Your task to perform on an android device: Clear all items from cart on amazon. Add "amazon basics triple a" to the cart on amazon, then select checkout. Image 0: 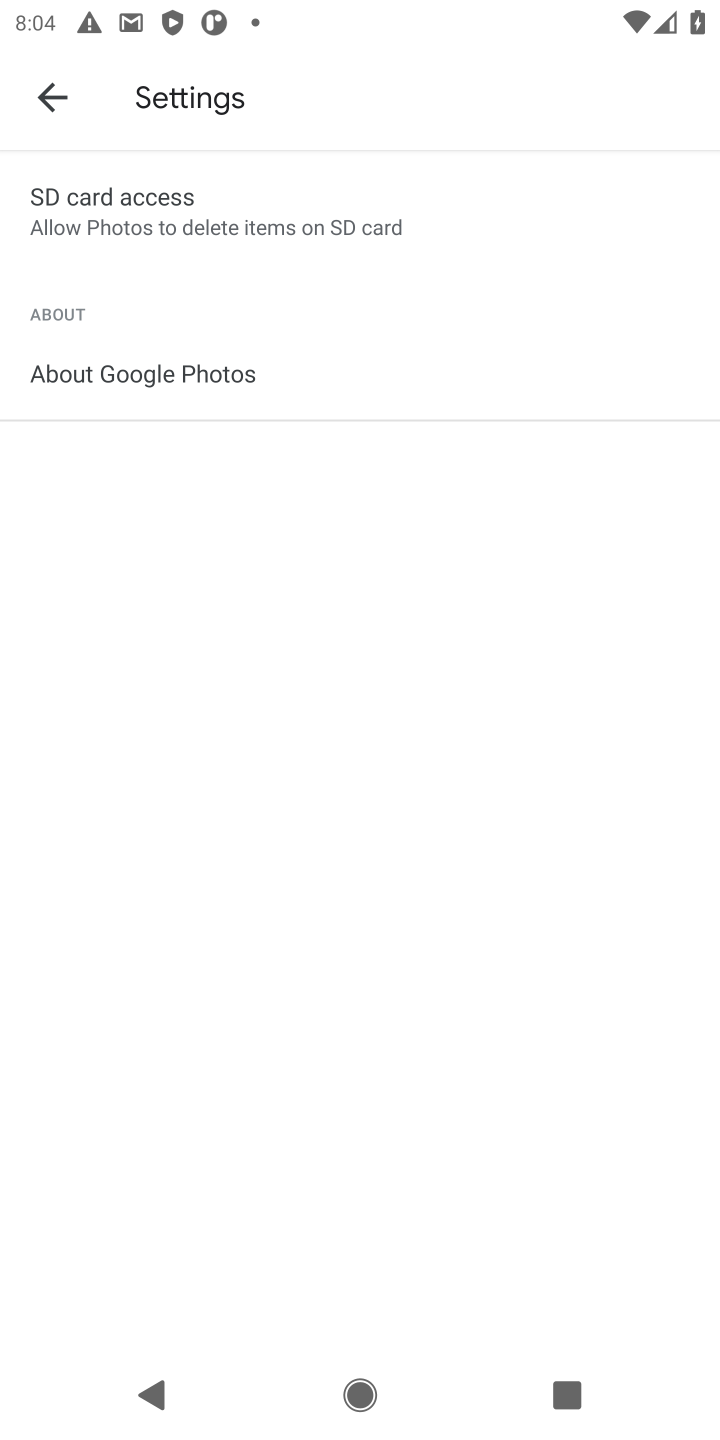
Step 0: press home button
Your task to perform on an android device: Clear all items from cart on amazon. Add "amazon basics triple a" to the cart on amazon, then select checkout. Image 1: 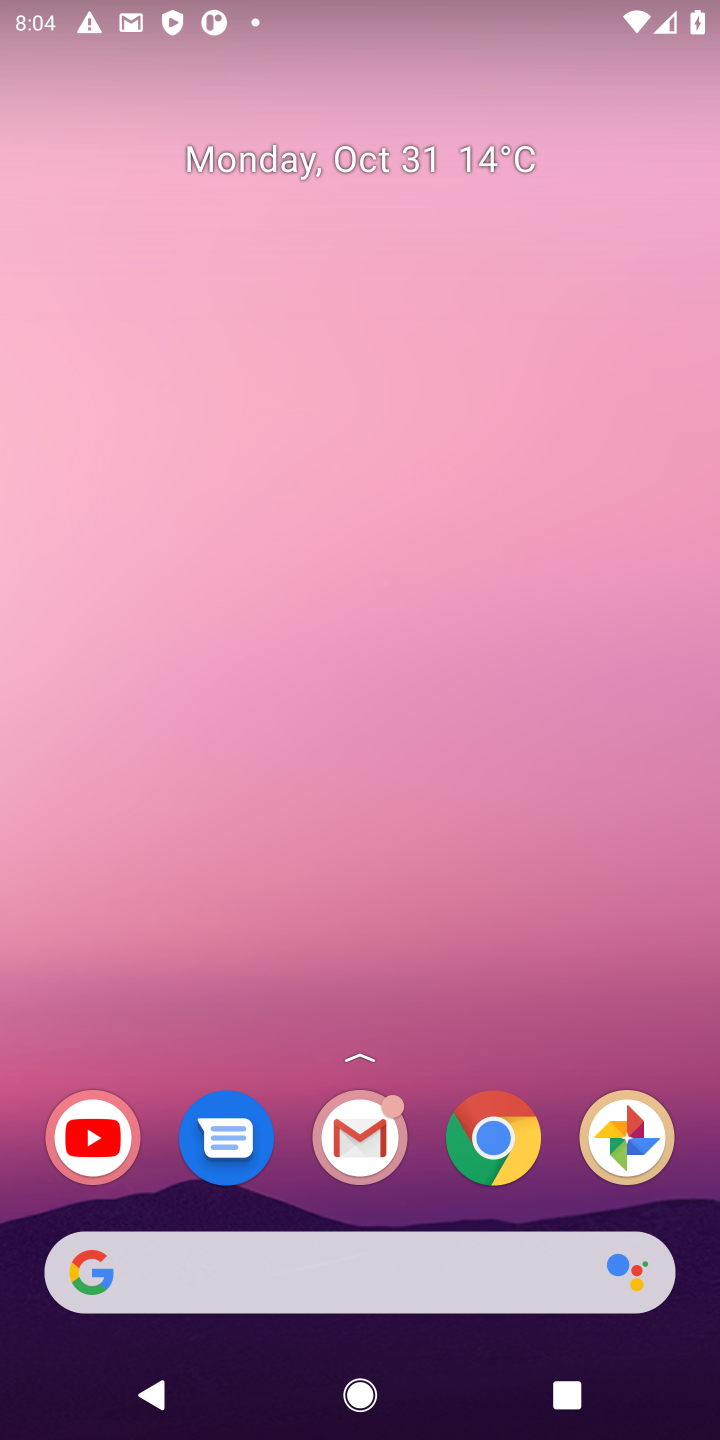
Step 1: click (515, 1122)
Your task to perform on an android device: Clear all items from cart on amazon. Add "amazon basics triple a" to the cart on amazon, then select checkout. Image 2: 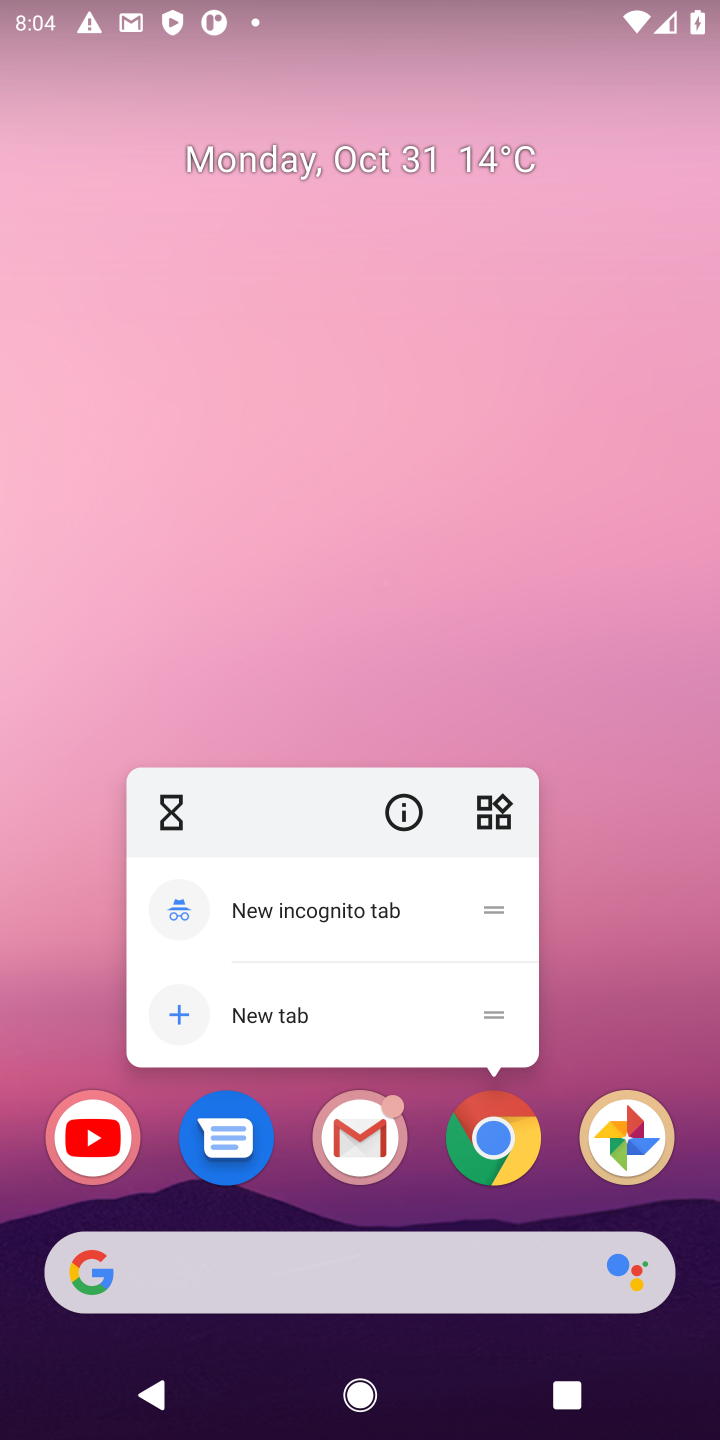
Step 2: click (472, 1161)
Your task to perform on an android device: Clear all items from cart on amazon. Add "amazon basics triple a" to the cart on amazon, then select checkout. Image 3: 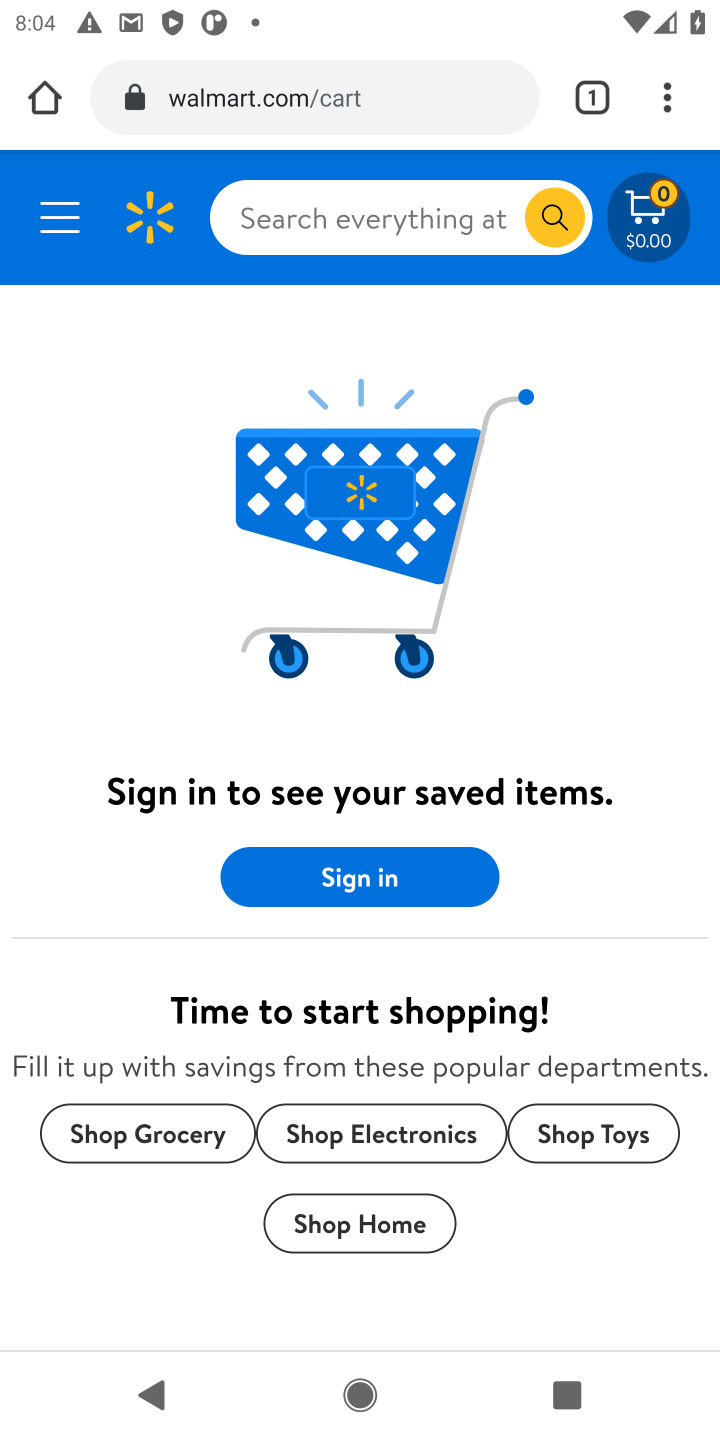
Step 3: click (300, 94)
Your task to perform on an android device: Clear all items from cart on amazon. Add "amazon basics triple a" to the cart on amazon, then select checkout. Image 4: 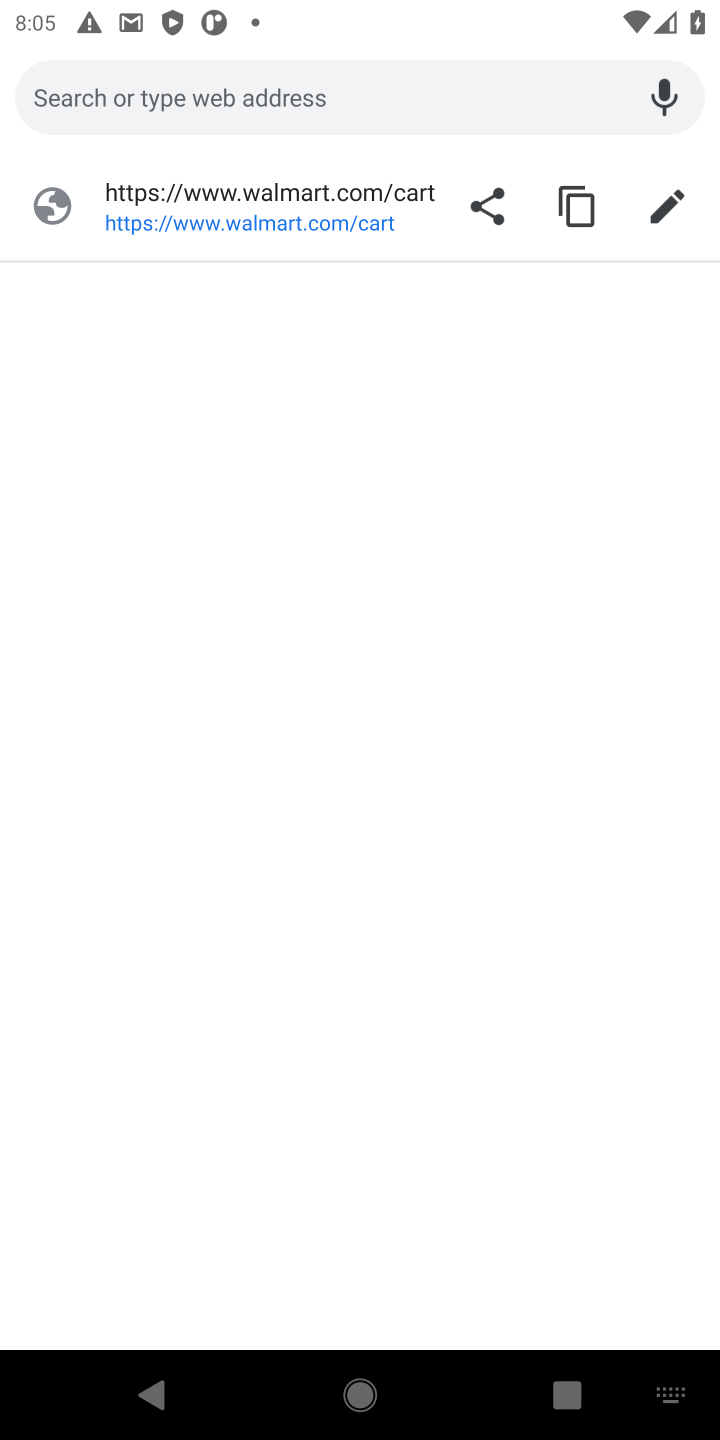
Step 4: type "amazon"
Your task to perform on an android device: Clear all items from cart on amazon. Add "amazon basics triple a" to the cart on amazon, then select checkout. Image 5: 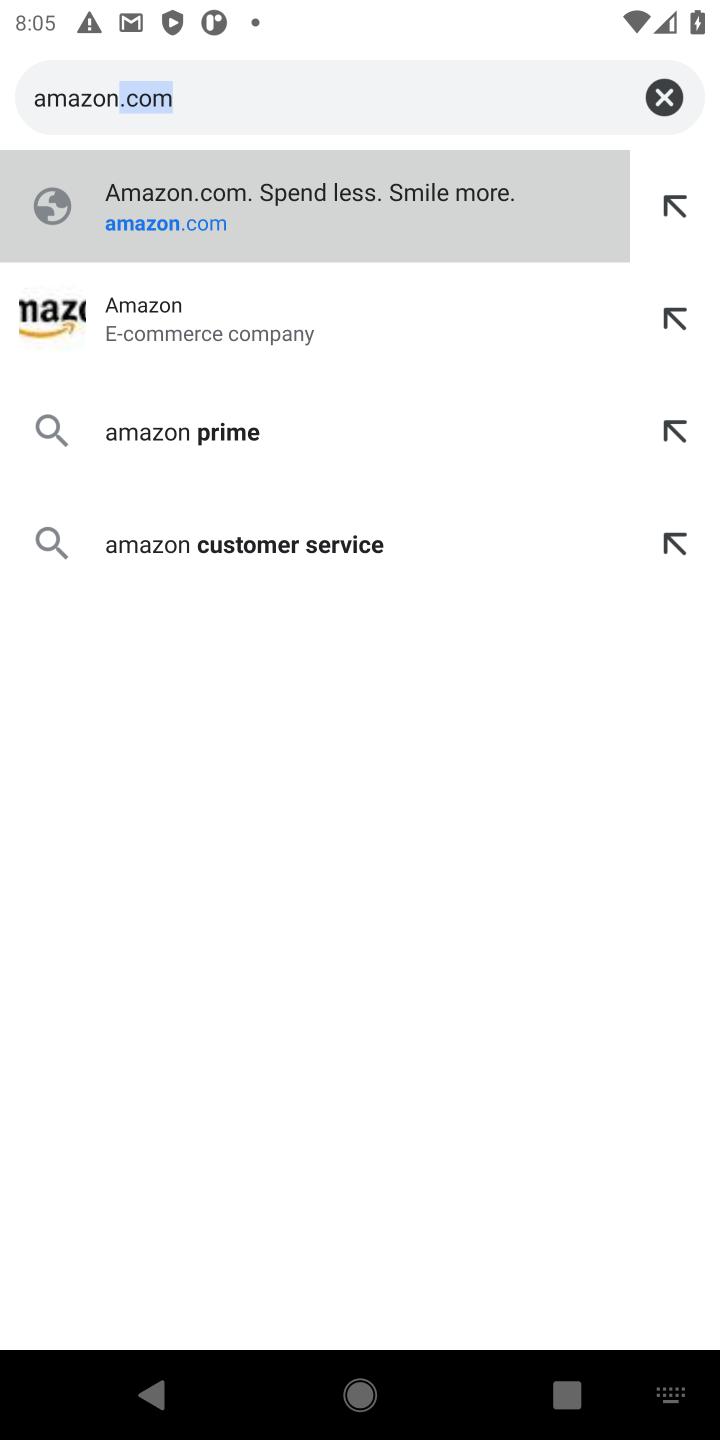
Step 5: click (125, 317)
Your task to perform on an android device: Clear all items from cart on amazon. Add "amazon basics triple a" to the cart on amazon, then select checkout. Image 6: 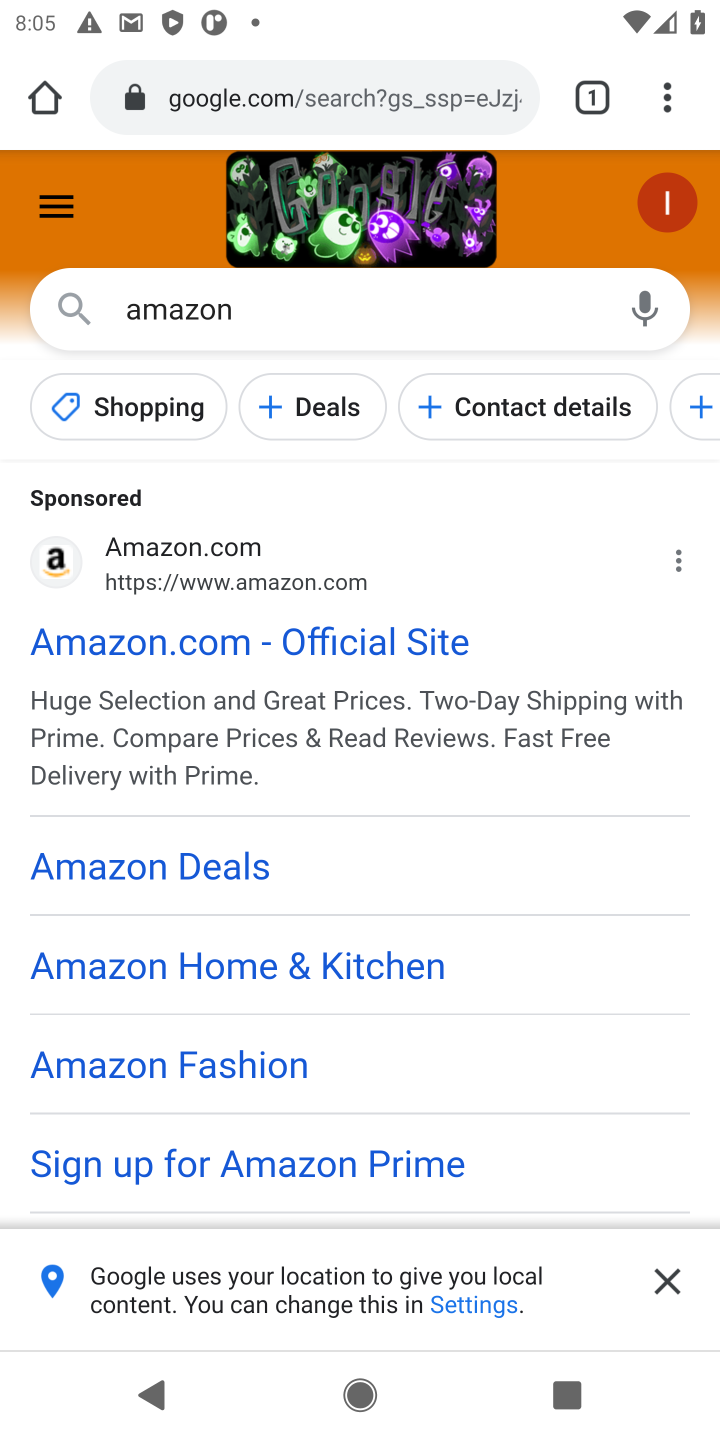
Step 6: click (128, 643)
Your task to perform on an android device: Clear all items from cart on amazon. Add "amazon basics triple a" to the cart on amazon, then select checkout. Image 7: 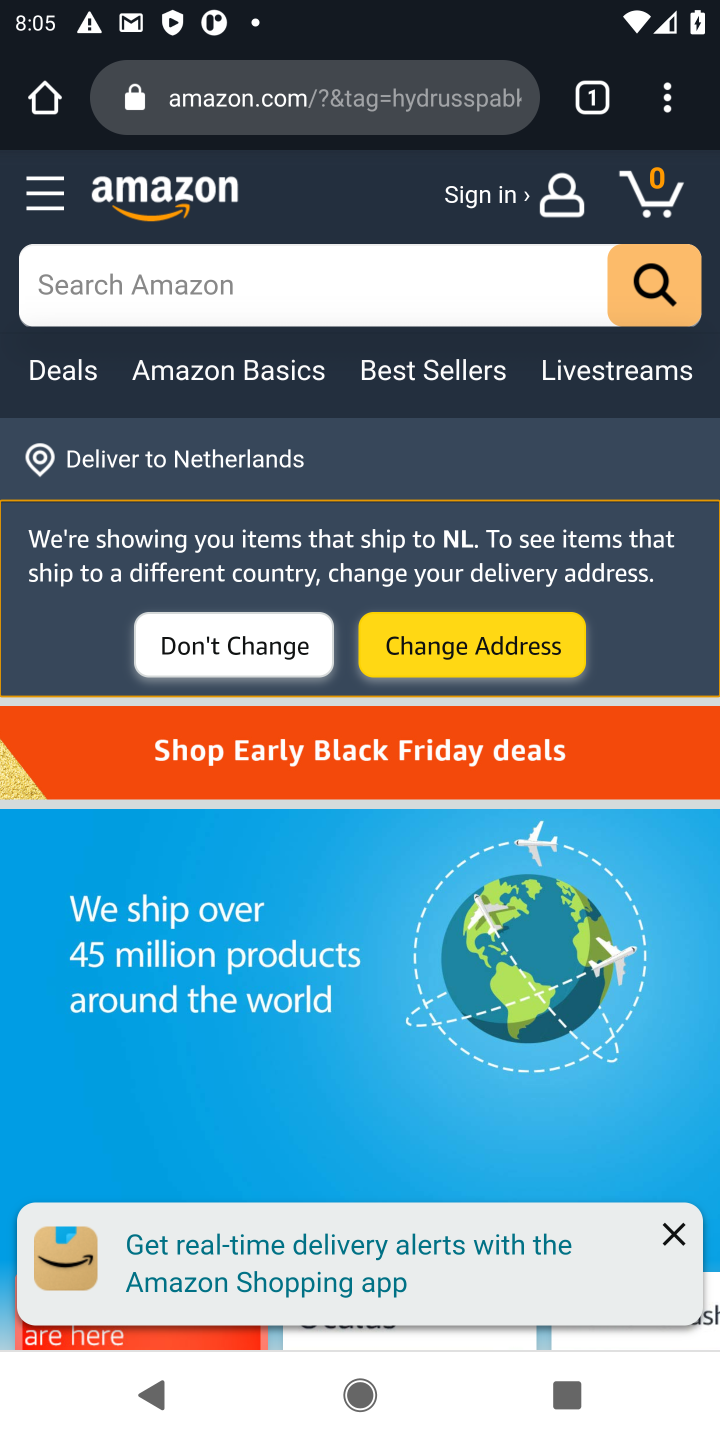
Step 7: click (139, 298)
Your task to perform on an android device: Clear all items from cart on amazon. Add "amazon basics triple a" to the cart on amazon, then select checkout. Image 8: 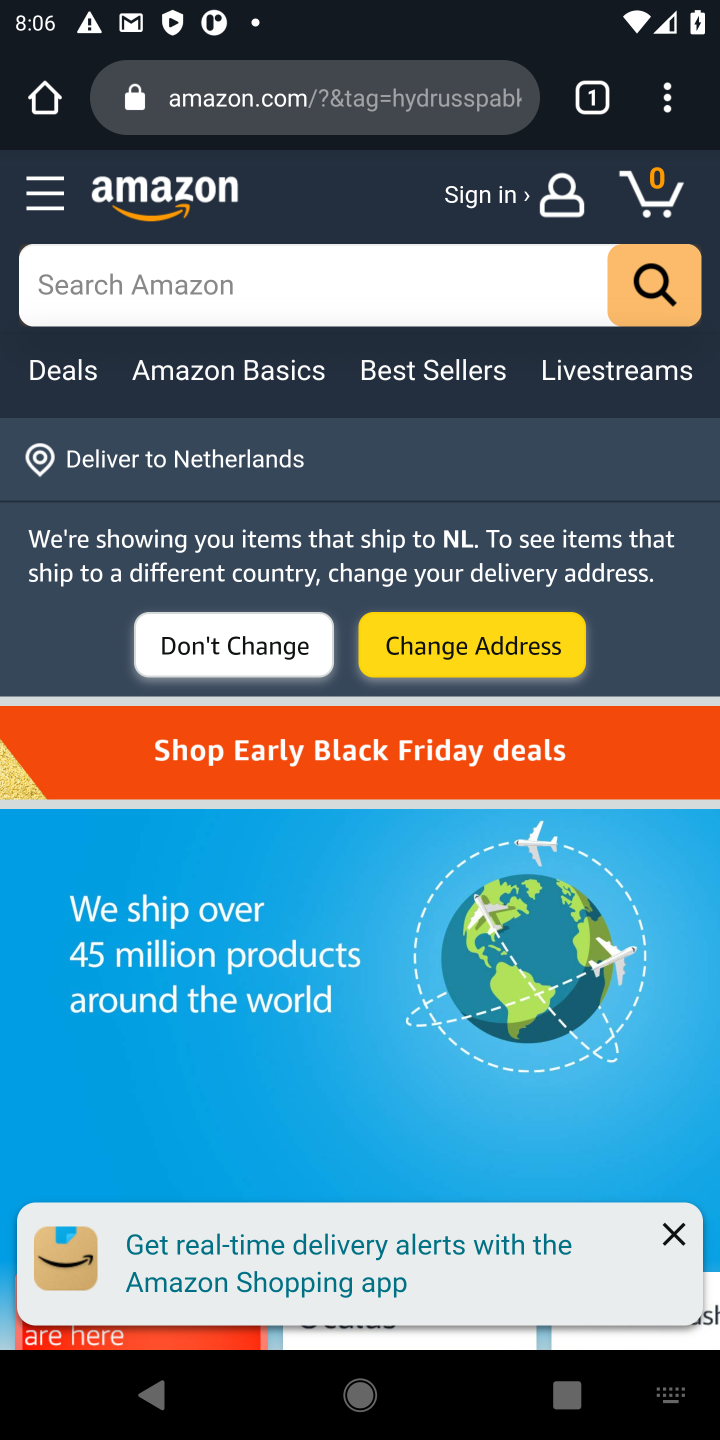
Step 8: type "amazon basic triple"
Your task to perform on an android device: Clear all items from cart on amazon. Add "amazon basics triple a" to the cart on amazon, then select checkout. Image 9: 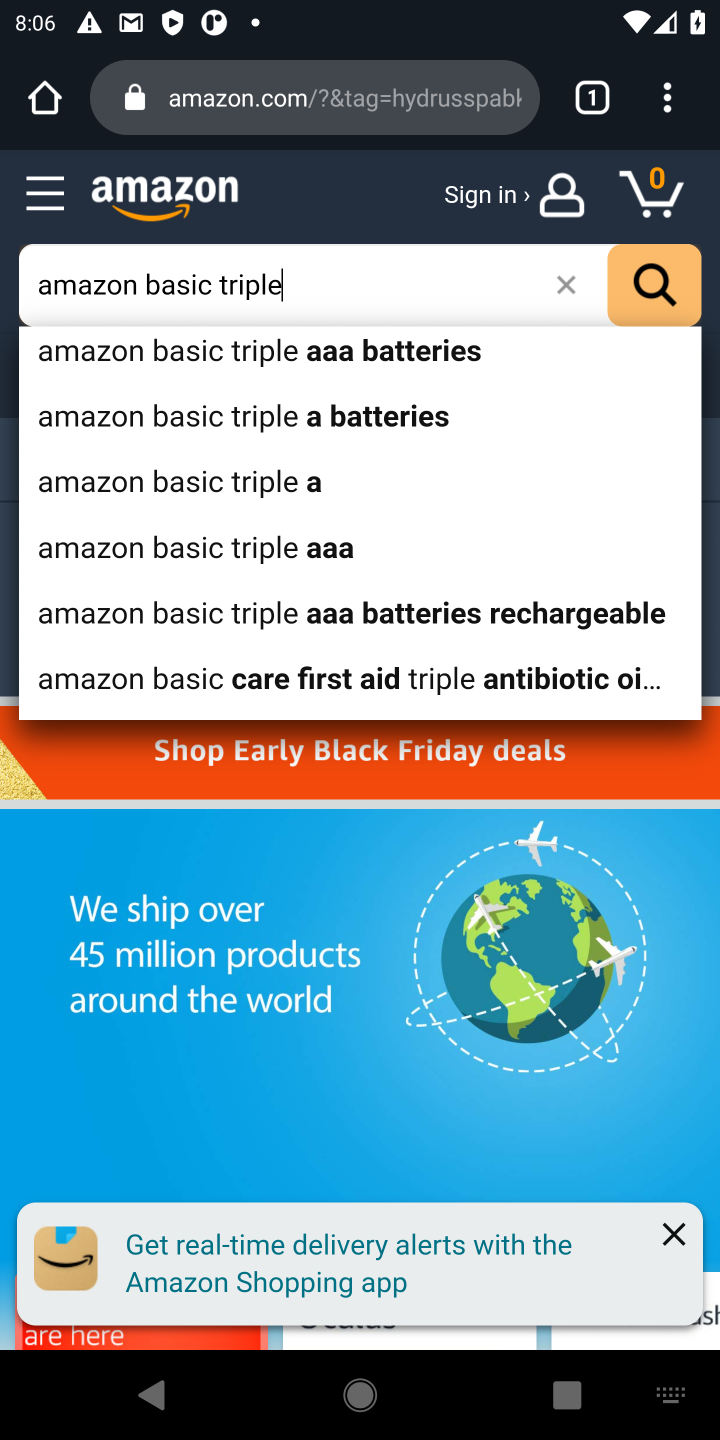
Step 9: click (341, 348)
Your task to perform on an android device: Clear all items from cart on amazon. Add "amazon basics triple a" to the cart on amazon, then select checkout. Image 10: 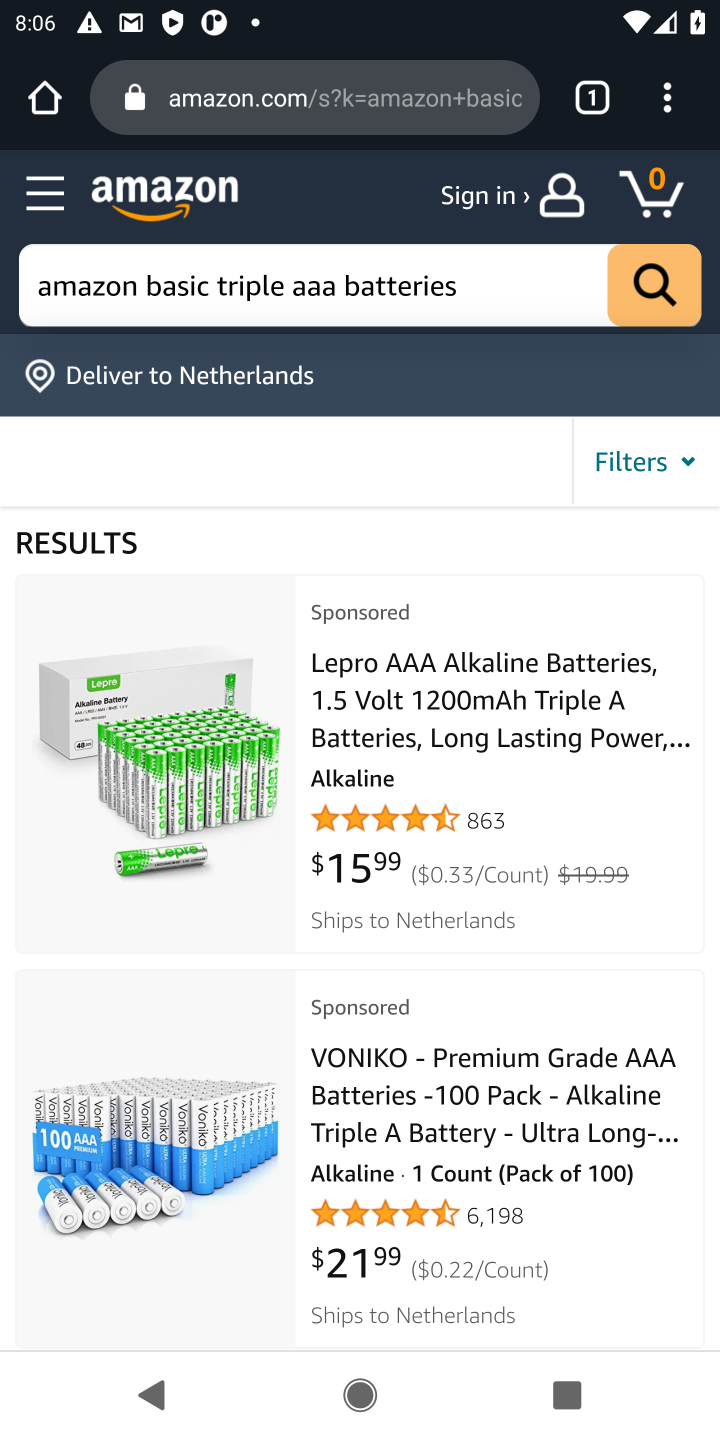
Step 10: drag from (135, 1046) to (158, 704)
Your task to perform on an android device: Clear all items from cart on amazon. Add "amazon basics triple a" to the cart on amazon, then select checkout. Image 11: 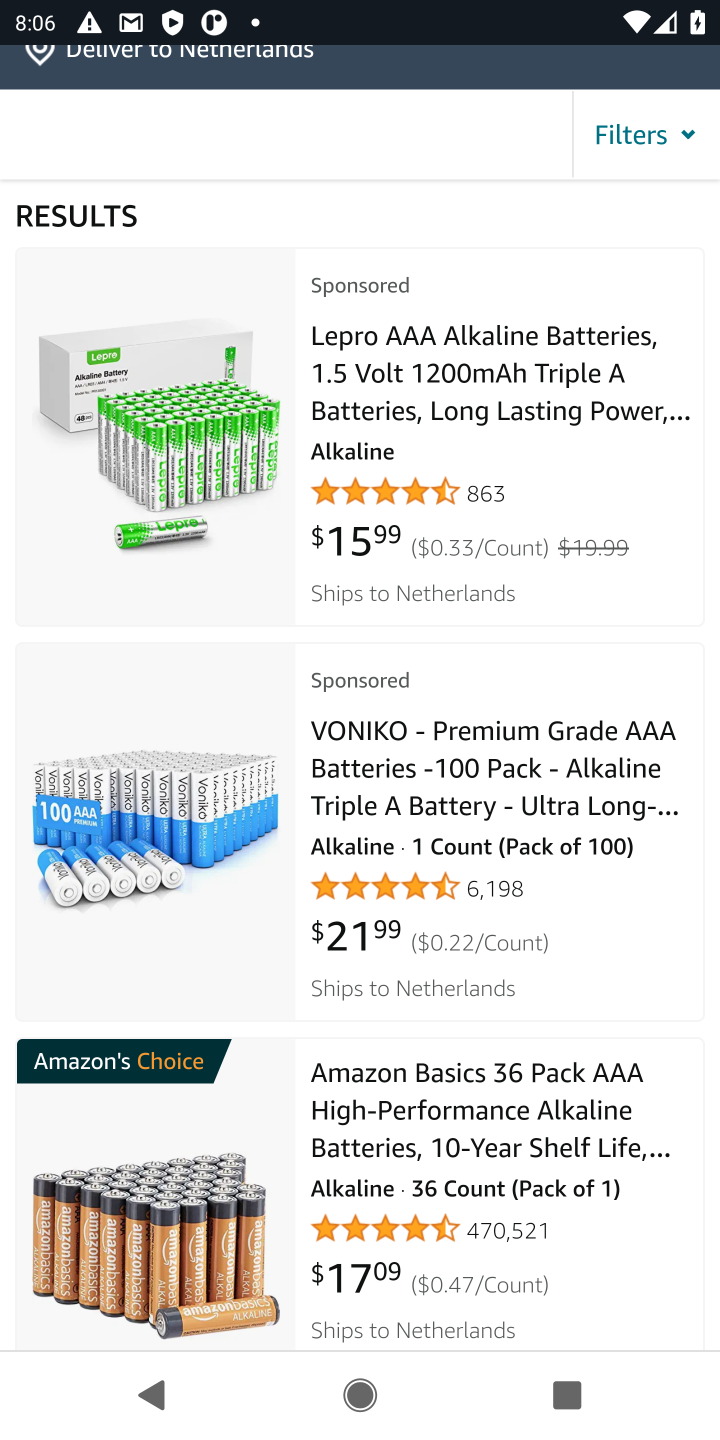
Step 11: click (394, 1163)
Your task to perform on an android device: Clear all items from cart on amazon. Add "amazon basics triple a" to the cart on amazon, then select checkout. Image 12: 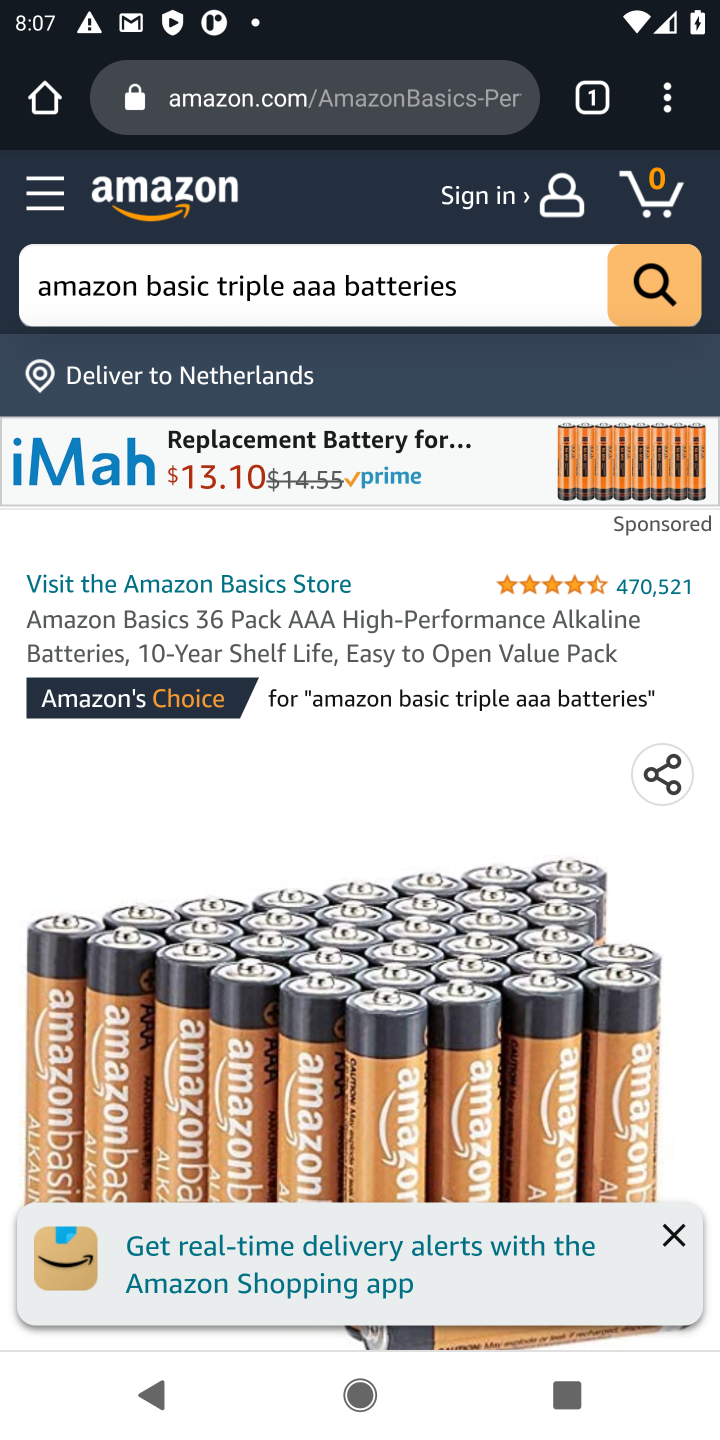
Step 12: click (673, 1231)
Your task to perform on an android device: Clear all items from cart on amazon. Add "amazon basics triple a" to the cart on amazon, then select checkout. Image 13: 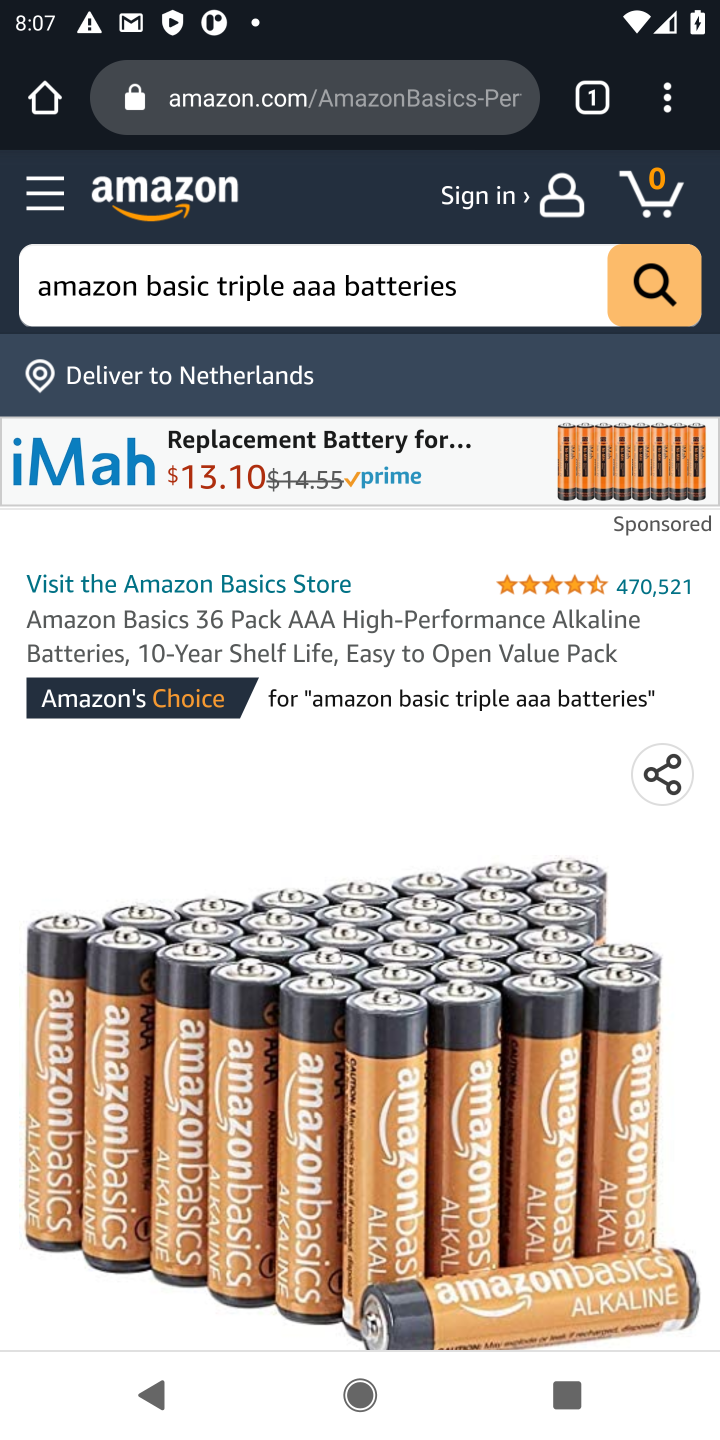
Step 13: drag from (383, 1266) to (421, 299)
Your task to perform on an android device: Clear all items from cart on amazon. Add "amazon basics triple a" to the cart on amazon, then select checkout. Image 14: 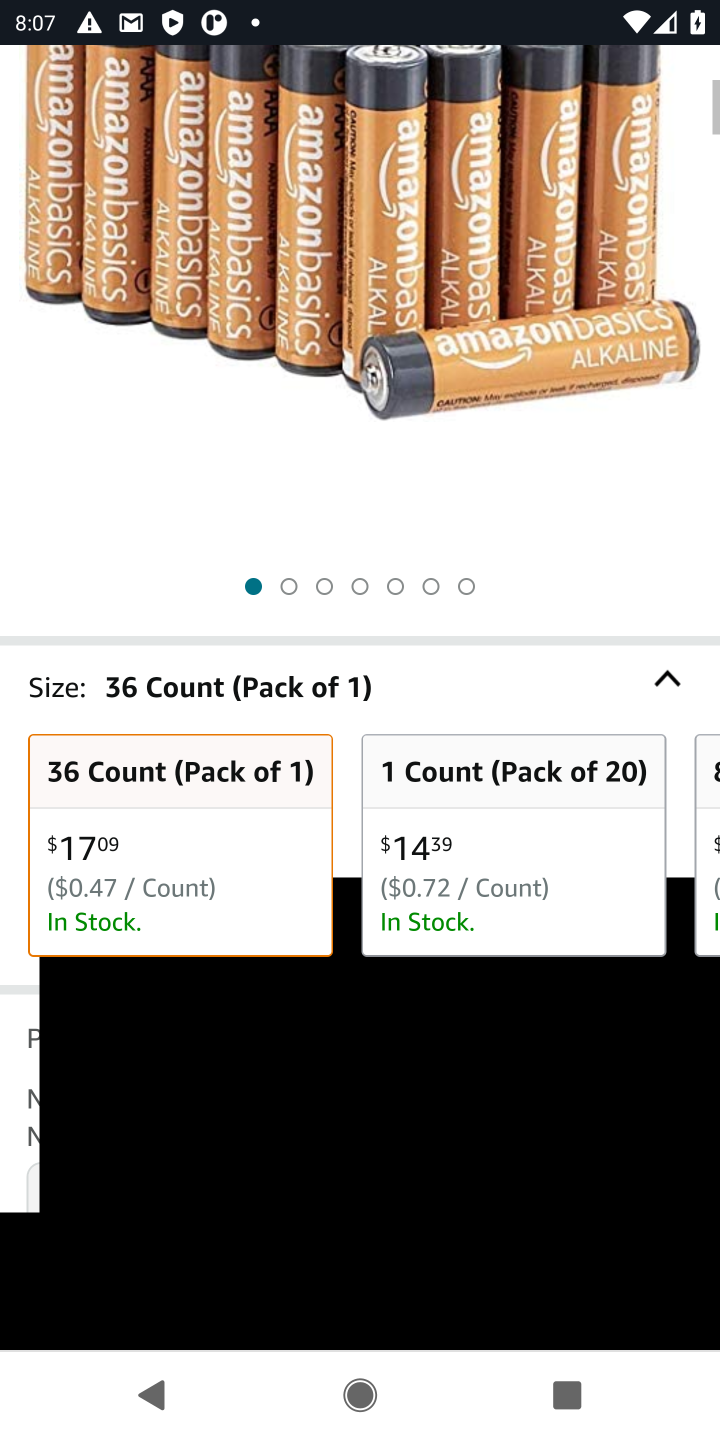
Step 14: drag from (456, 1050) to (458, 639)
Your task to perform on an android device: Clear all items from cart on amazon. Add "amazon basics triple a" to the cart on amazon, then select checkout. Image 15: 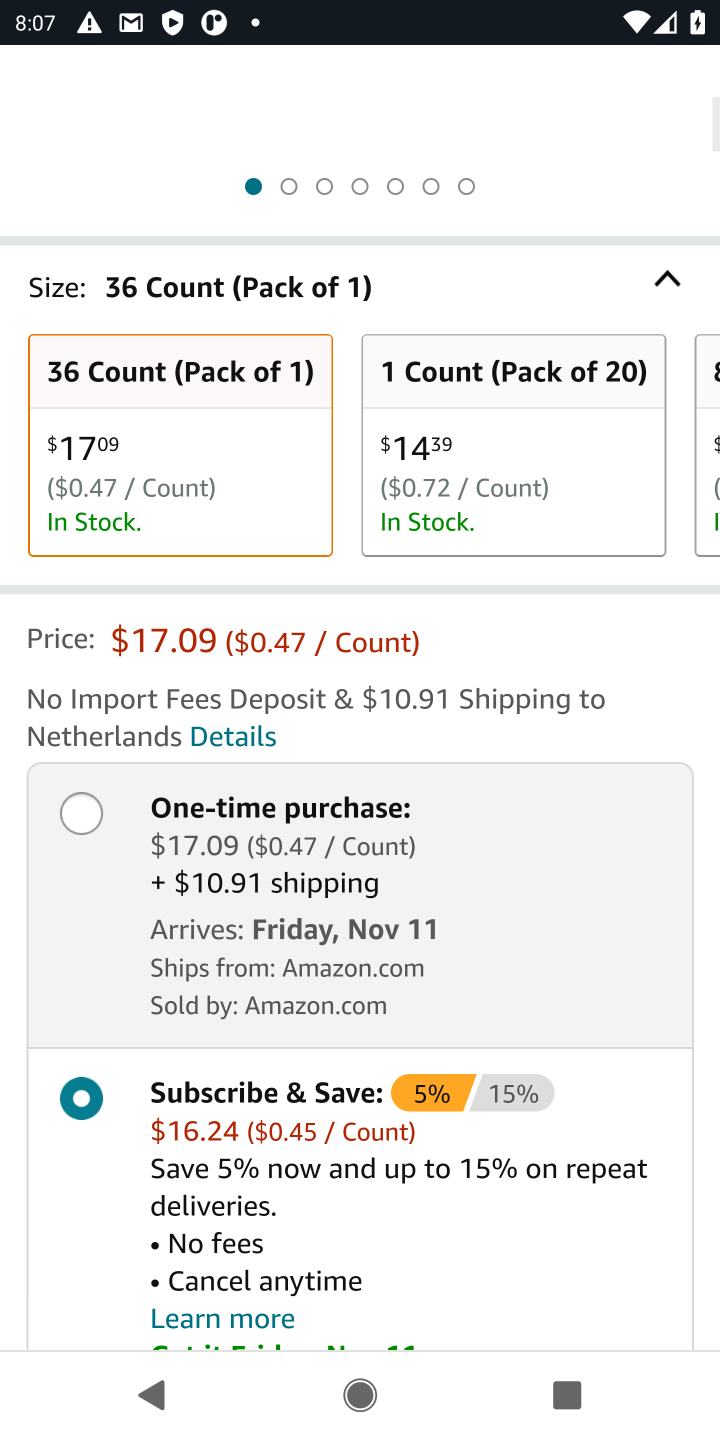
Step 15: drag from (498, 1212) to (480, 532)
Your task to perform on an android device: Clear all items from cart on amazon. Add "amazon basics triple a" to the cart on amazon, then select checkout. Image 16: 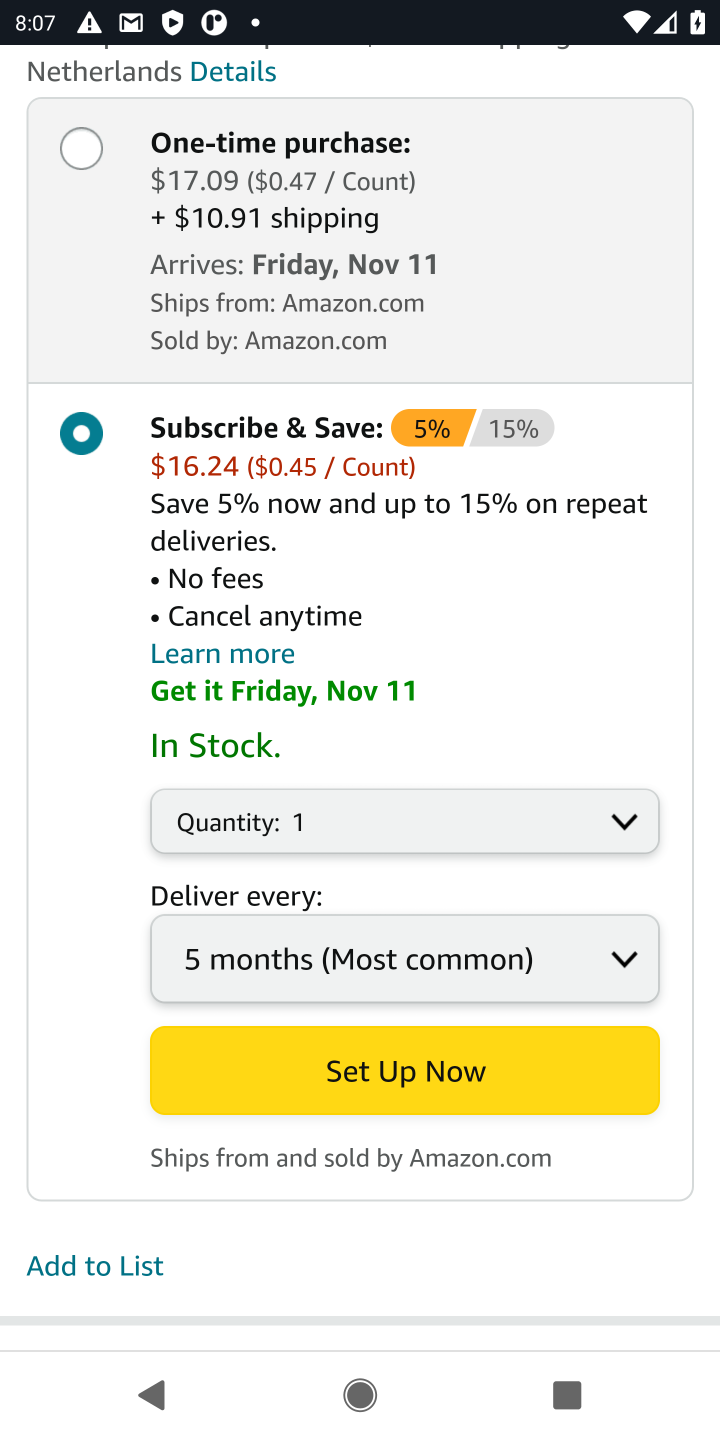
Step 16: drag from (368, 1165) to (368, 598)
Your task to perform on an android device: Clear all items from cart on amazon. Add "amazon basics triple a" to the cart on amazon, then select checkout. Image 17: 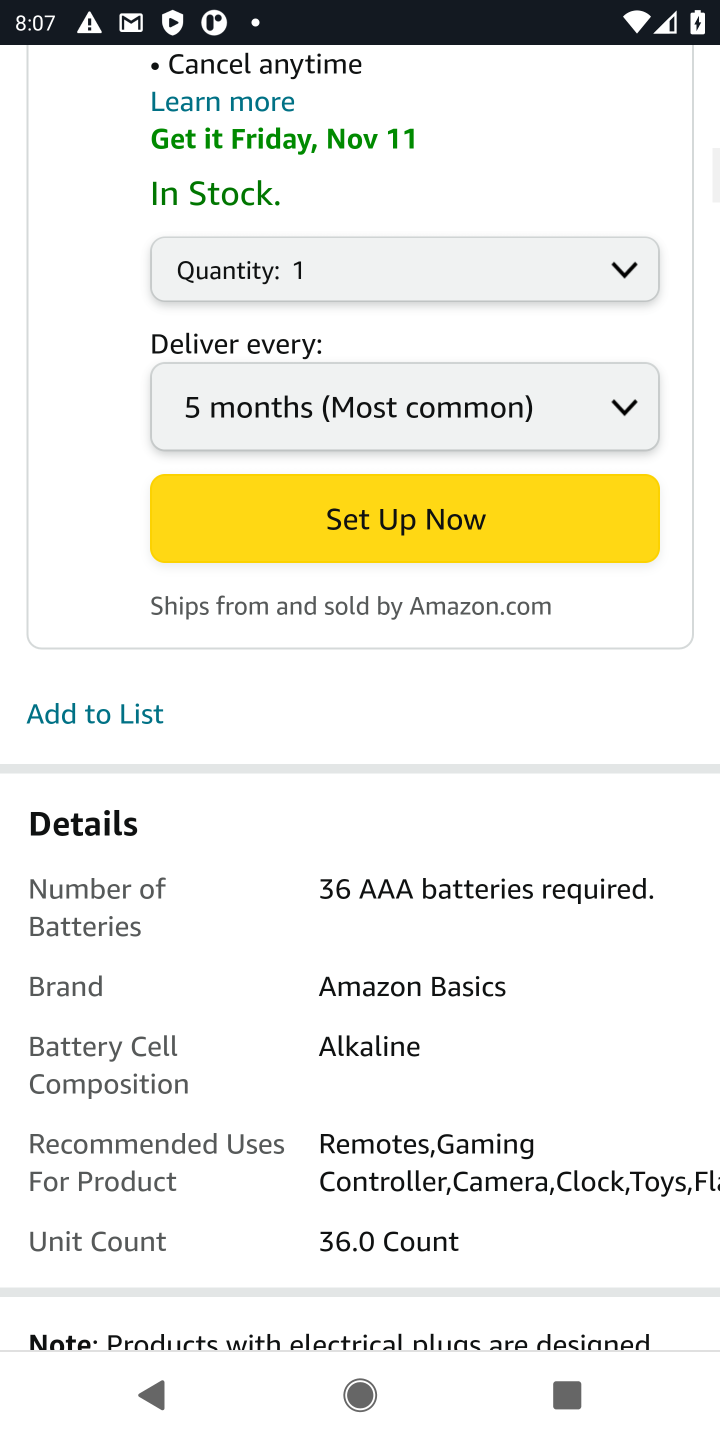
Step 17: drag from (329, 1047) to (329, 558)
Your task to perform on an android device: Clear all items from cart on amazon. Add "amazon basics triple a" to the cart on amazon, then select checkout. Image 18: 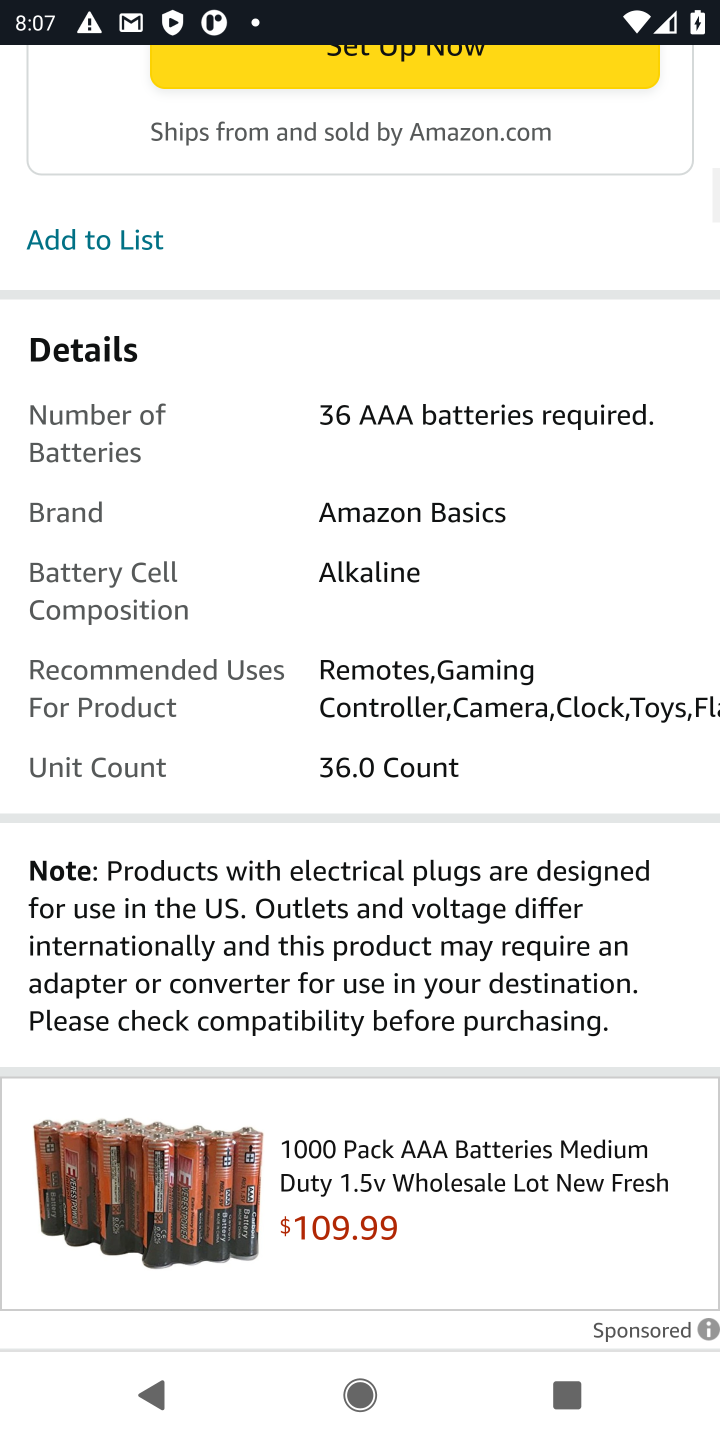
Step 18: drag from (456, 944) to (456, 710)
Your task to perform on an android device: Clear all items from cart on amazon. Add "amazon basics triple a" to the cart on amazon, then select checkout. Image 19: 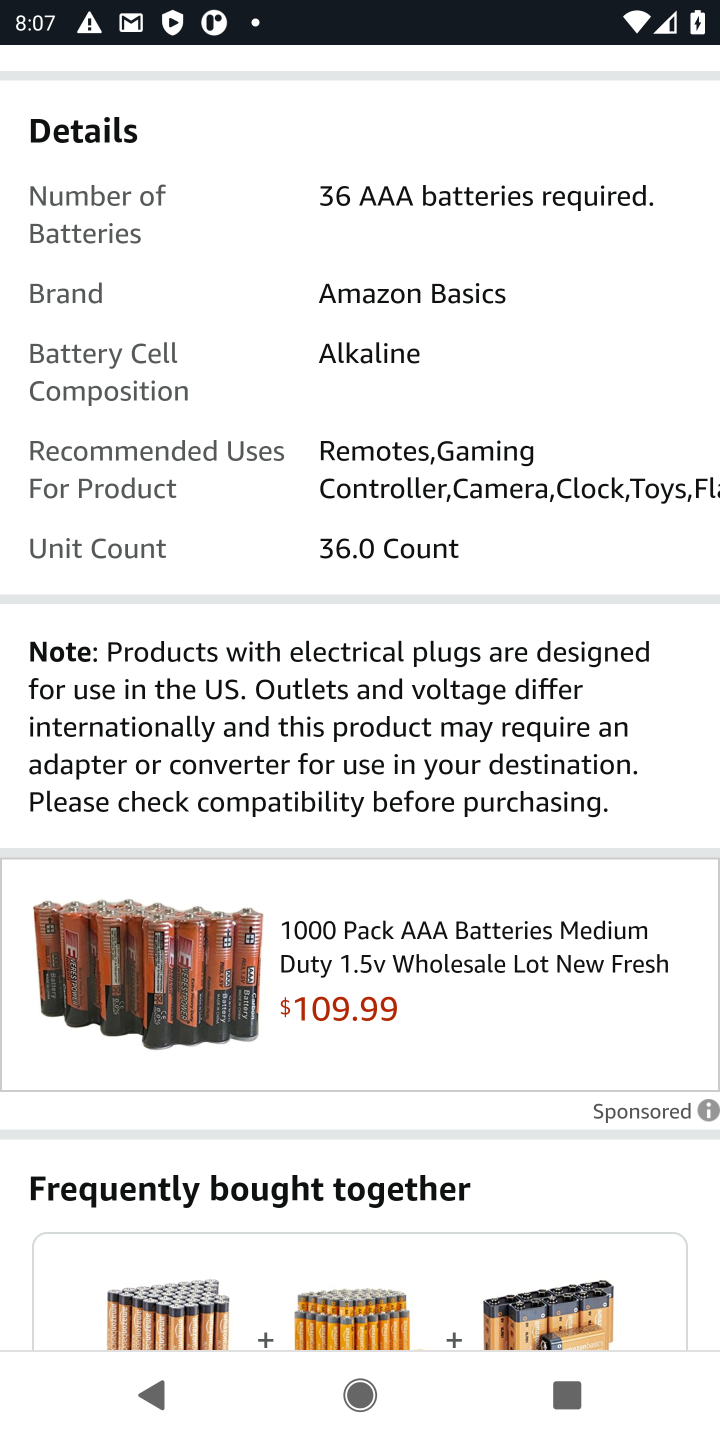
Step 19: drag from (353, 551) to (444, 1137)
Your task to perform on an android device: Clear all items from cart on amazon. Add "amazon basics triple a" to the cart on amazon, then select checkout. Image 20: 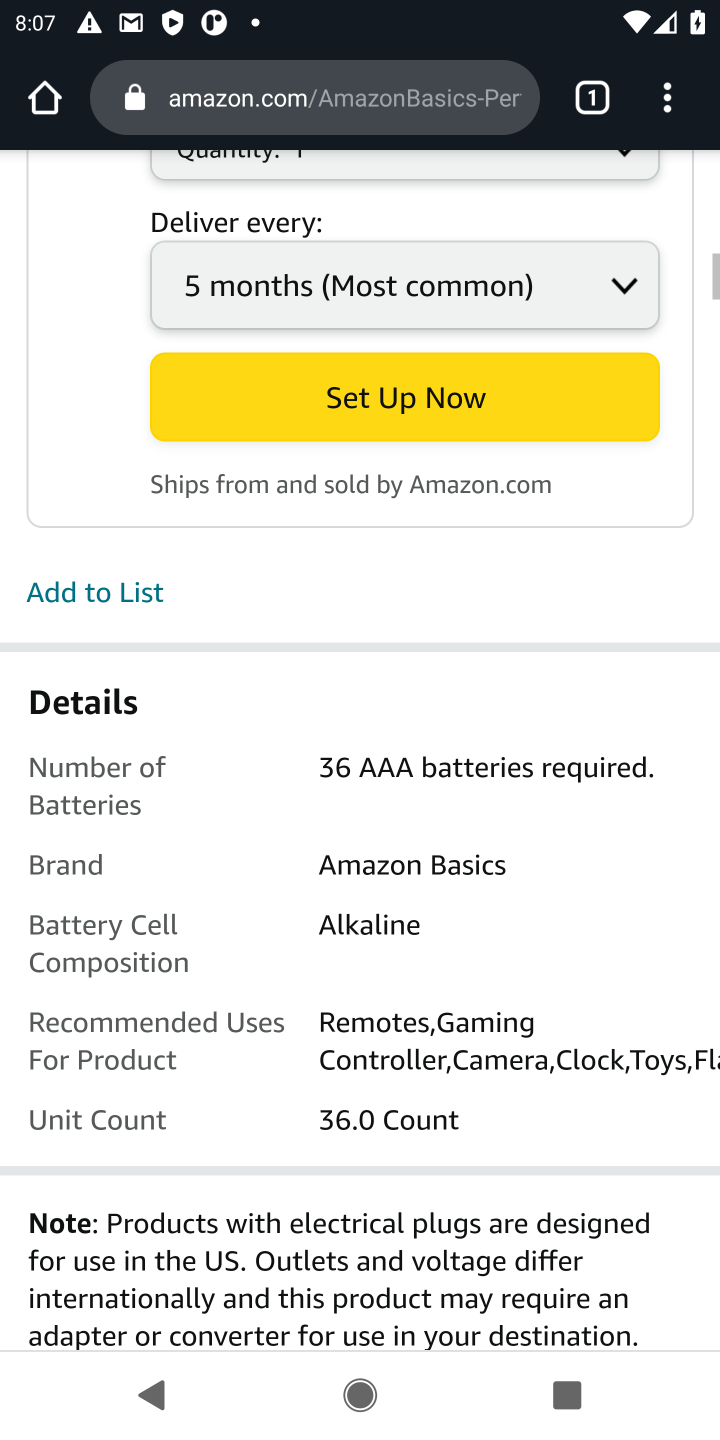
Step 20: drag from (316, 596) to (393, 1077)
Your task to perform on an android device: Clear all items from cart on amazon. Add "amazon basics triple a" to the cart on amazon, then select checkout. Image 21: 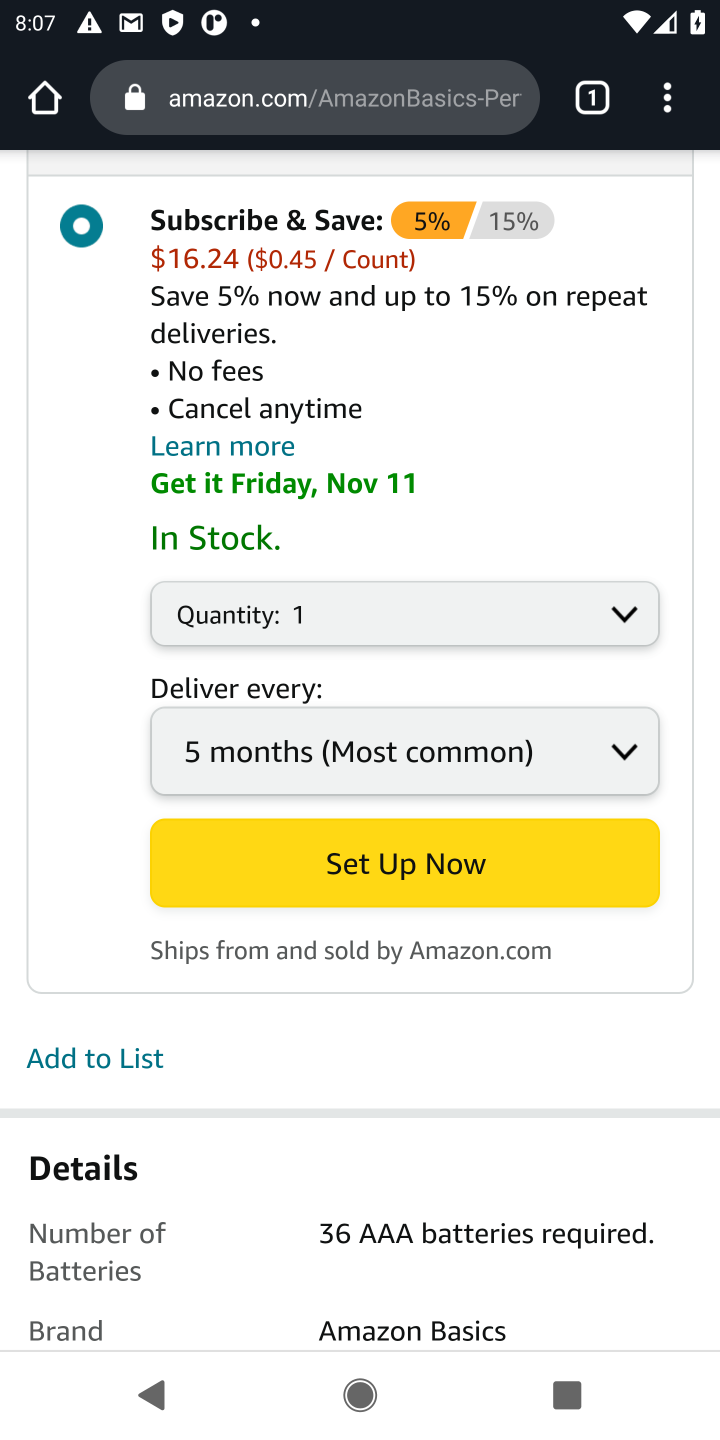
Step 21: click (371, 868)
Your task to perform on an android device: Clear all items from cart on amazon. Add "amazon basics triple a" to the cart on amazon, then select checkout. Image 22: 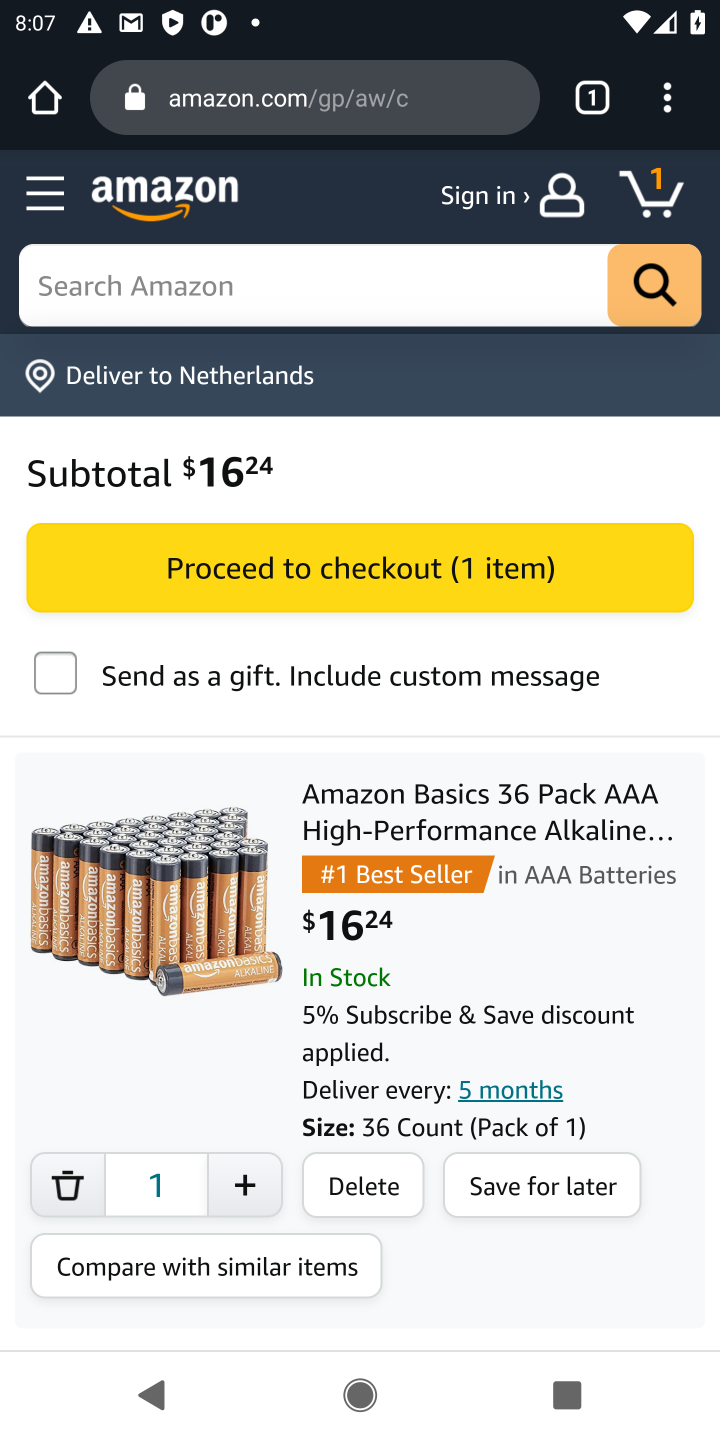
Step 22: click (329, 577)
Your task to perform on an android device: Clear all items from cart on amazon. Add "amazon basics triple a" to the cart on amazon, then select checkout. Image 23: 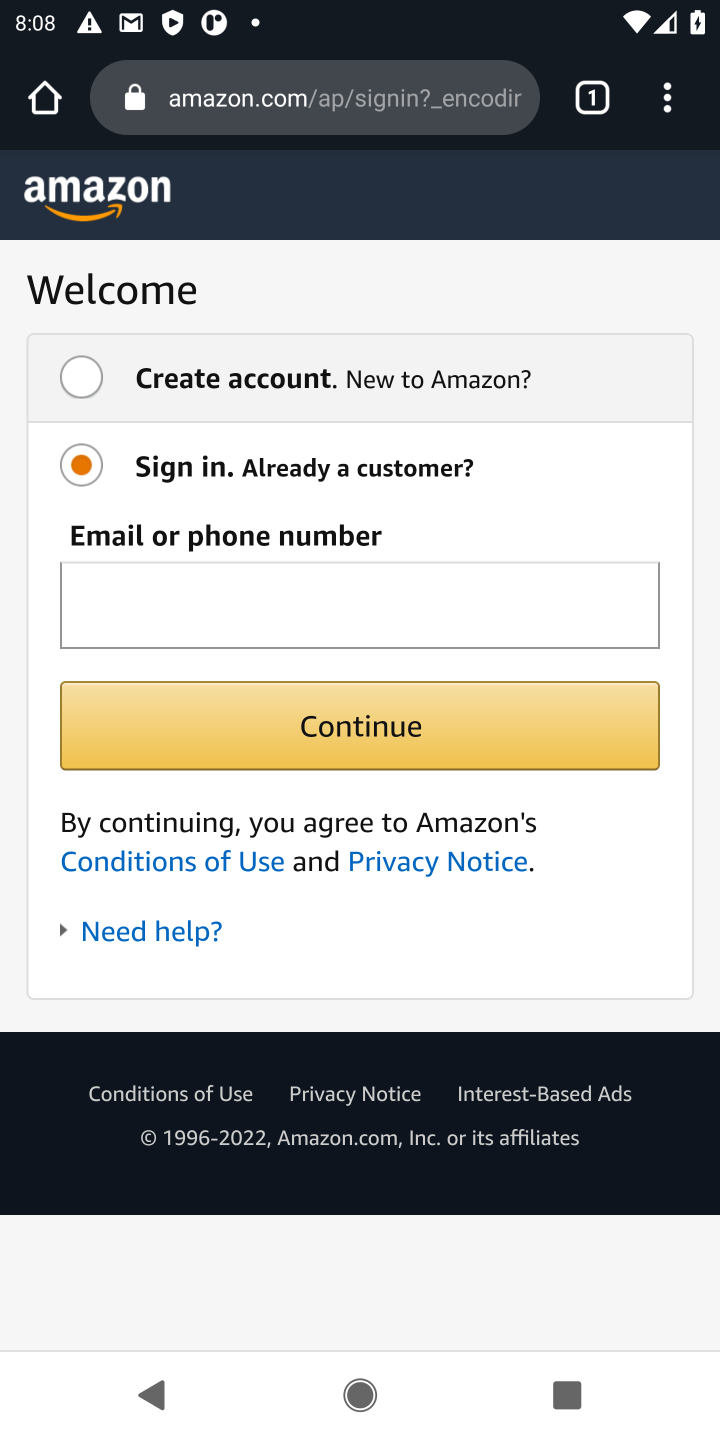
Step 23: task complete